Your task to perform on an android device: toggle airplane mode Image 0: 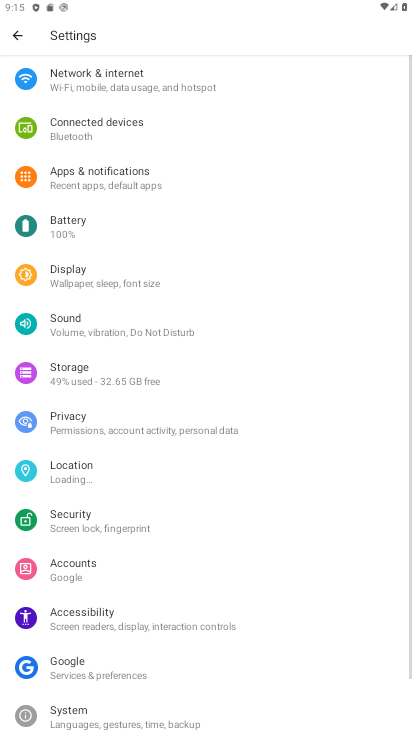
Step 0: drag from (176, 143) to (139, 461)
Your task to perform on an android device: toggle airplane mode Image 1: 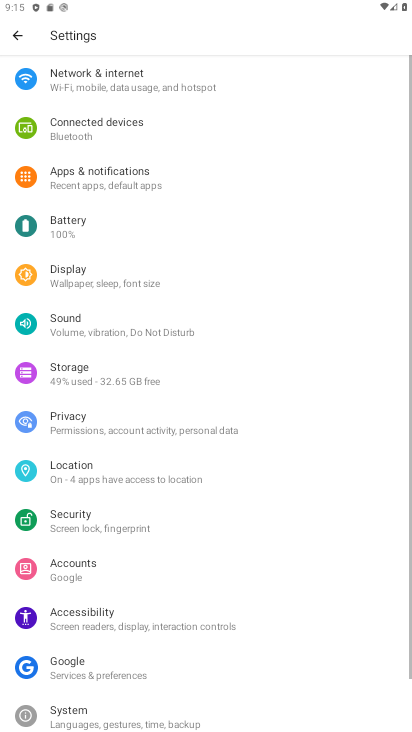
Step 1: click (88, 65)
Your task to perform on an android device: toggle airplane mode Image 2: 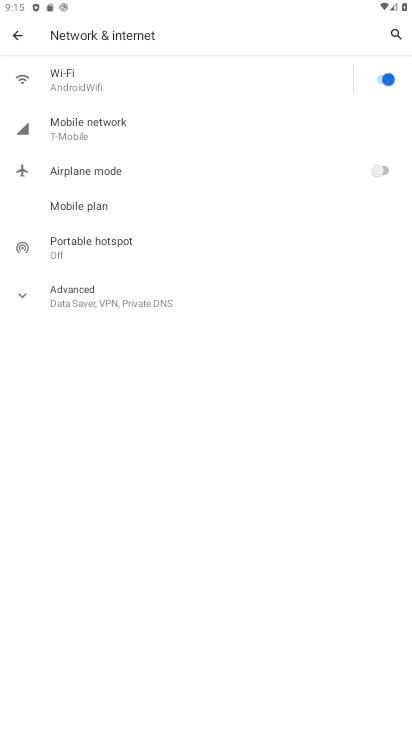
Step 2: click (376, 171)
Your task to perform on an android device: toggle airplane mode Image 3: 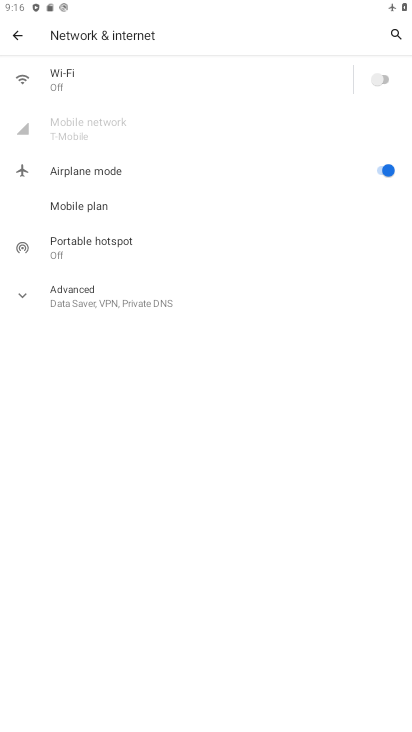
Step 3: task complete